Your task to perform on an android device: Go to ESPN.com Image 0: 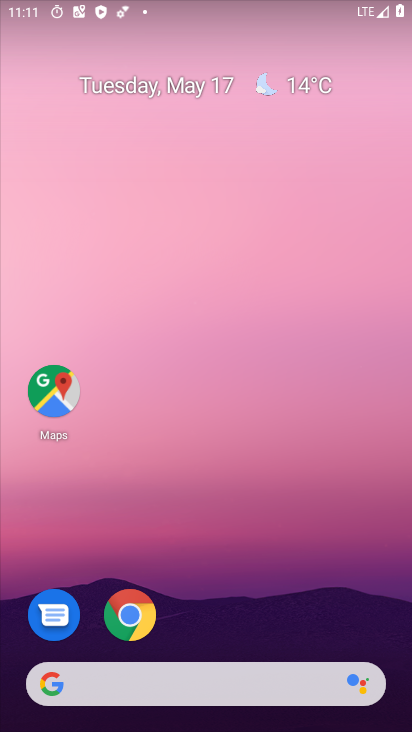
Step 0: click (139, 614)
Your task to perform on an android device: Go to ESPN.com Image 1: 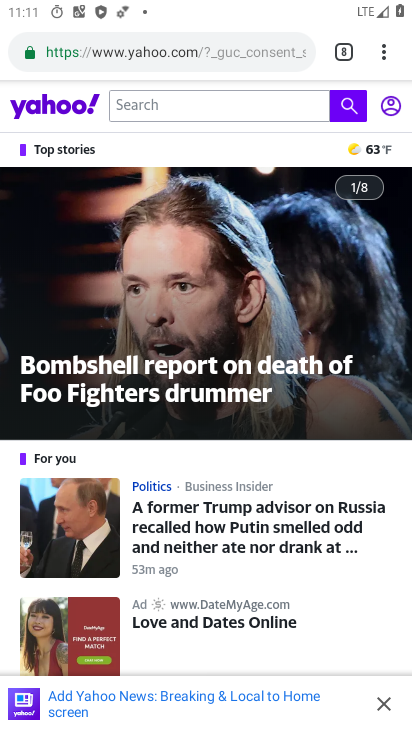
Step 1: drag from (383, 53) to (250, 105)
Your task to perform on an android device: Go to ESPN.com Image 2: 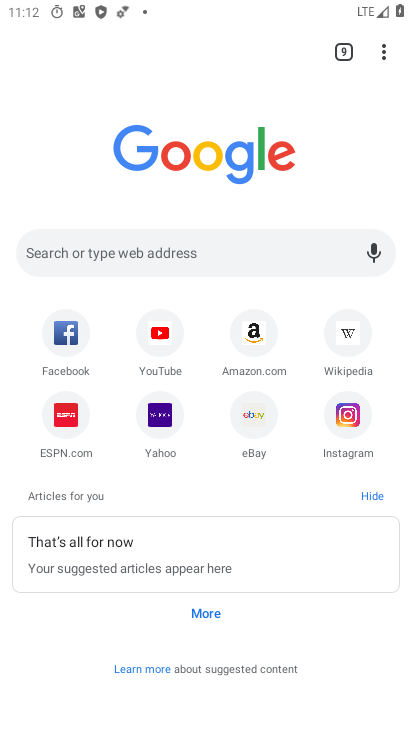
Step 2: click (69, 419)
Your task to perform on an android device: Go to ESPN.com Image 3: 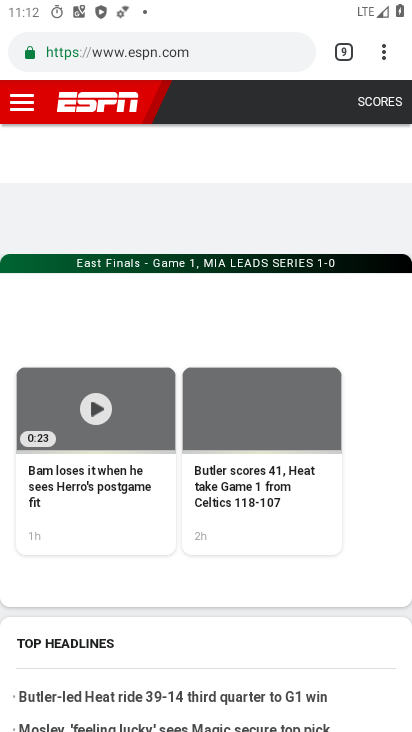
Step 3: task complete